Your task to perform on an android device: Open the phone app and click the voicemail tab. Image 0: 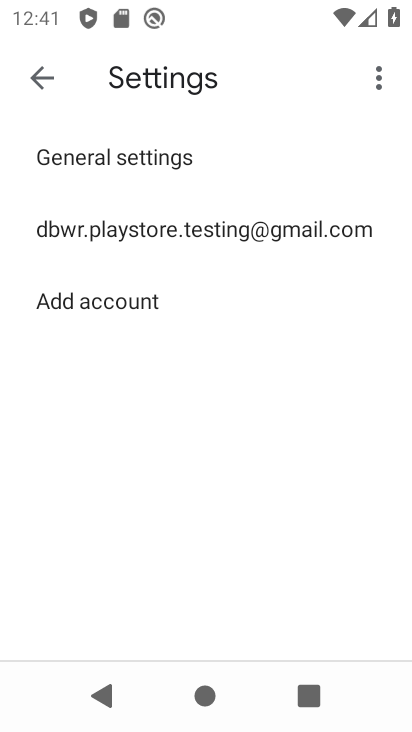
Step 0: press home button
Your task to perform on an android device: Open the phone app and click the voicemail tab. Image 1: 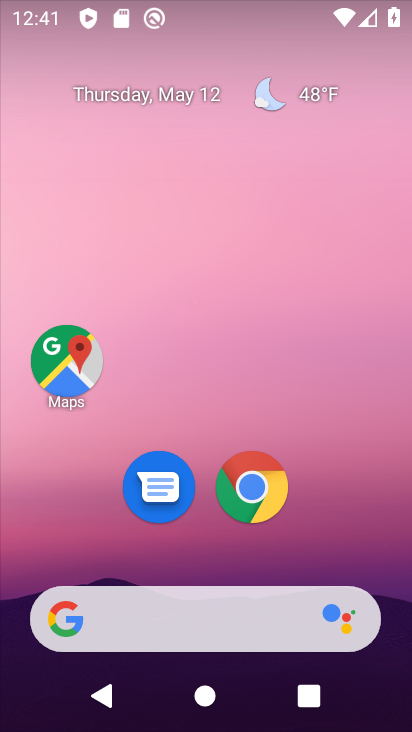
Step 1: drag from (289, 289) to (312, 11)
Your task to perform on an android device: Open the phone app and click the voicemail tab. Image 2: 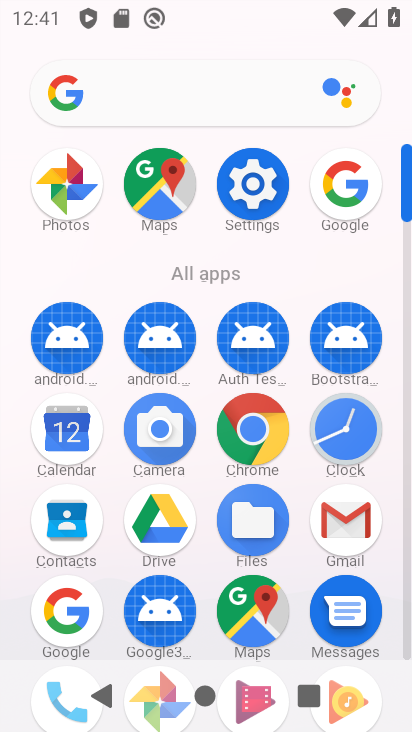
Step 2: drag from (310, 476) to (387, 189)
Your task to perform on an android device: Open the phone app and click the voicemail tab. Image 3: 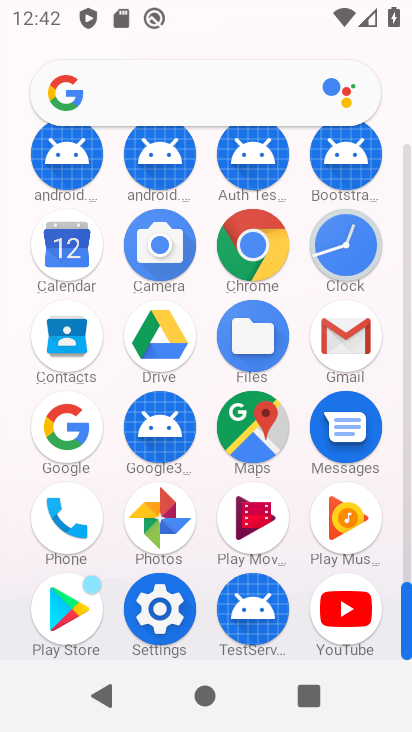
Step 3: click (60, 545)
Your task to perform on an android device: Open the phone app and click the voicemail tab. Image 4: 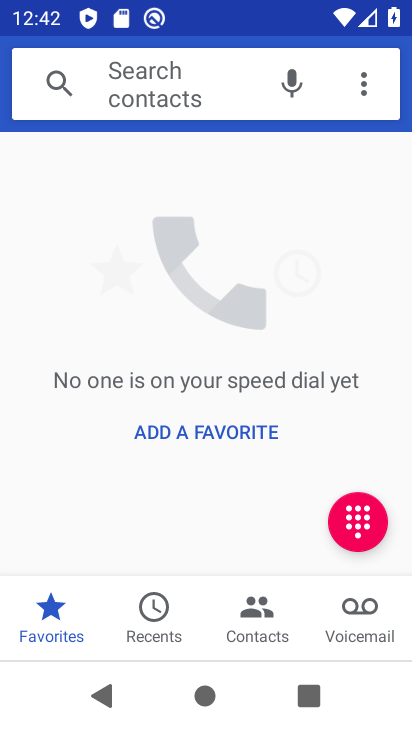
Step 4: click (360, 601)
Your task to perform on an android device: Open the phone app and click the voicemail tab. Image 5: 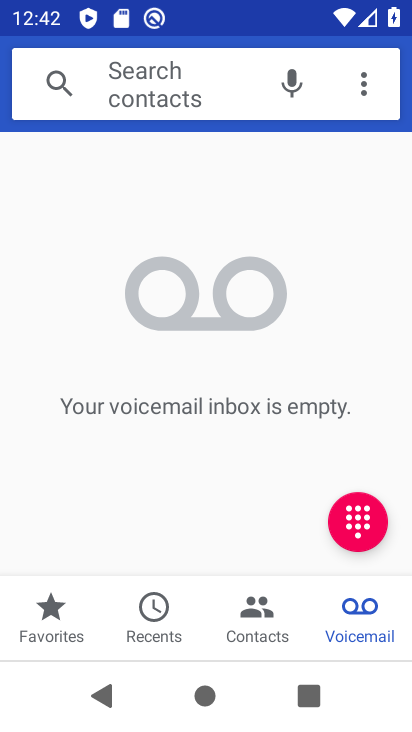
Step 5: task complete